Your task to perform on an android device: change text size in settings app Image 0: 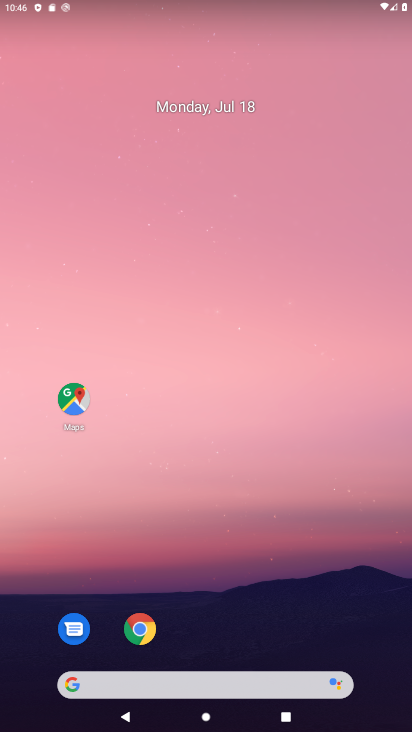
Step 0: drag from (356, 572) to (261, 140)
Your task to perform on an android device: change text size in settings app Image 1: 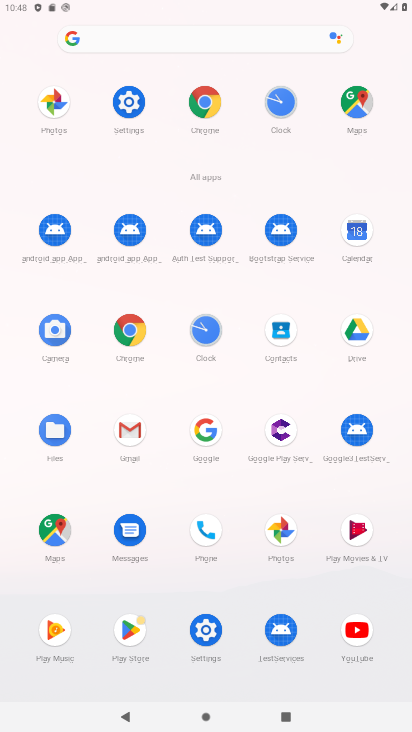
Step 1: click (205, 645)
Your task to perform on an android device: change text size in settings app Image 2: 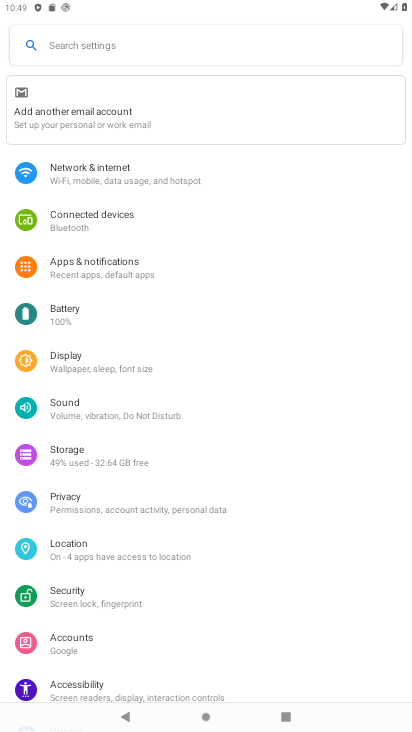
Step 2: task complete